Your task to perform on an android device: clear all cookies in the chrome app Image 0: 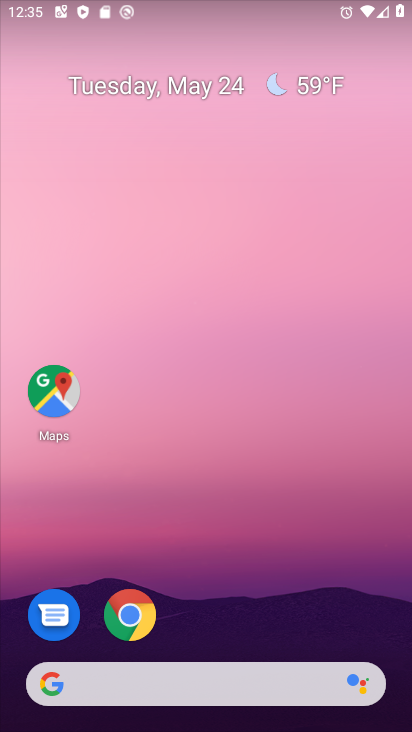
Step 0: drag from (260, 583) to (206, 15)
Your task to perform on an android device: clear all cookies in the chrome app Image 1: 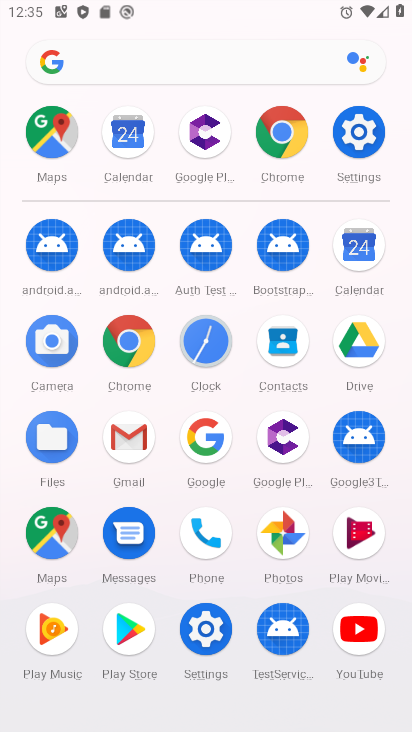
Step 1: click (127, 339)
Your task to perform on an android device: clear all cookies in the chrome app Image 2: 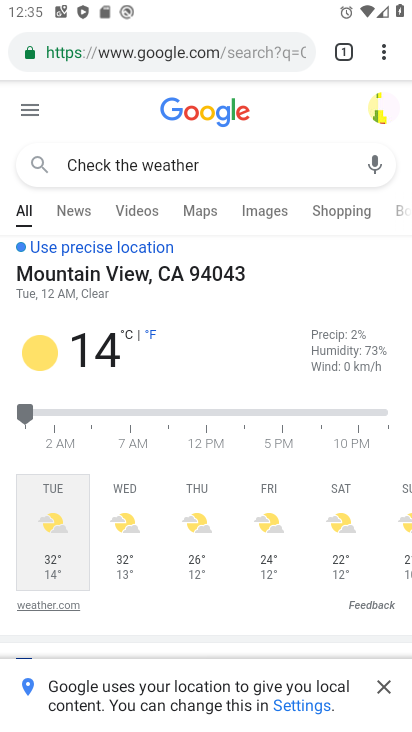
Step 2: drag from (383, 49) to (209, 579)
Your task to perform on an android device: clear all cookies in the chrome app Image 3: 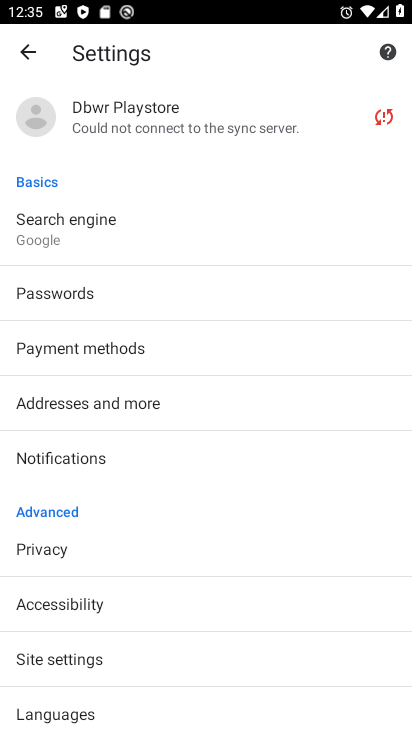
Step 3: drag from (192, 538) to (192, 182)
Your task to perform on an android device: clear all cookies in the chrome app Image 4: 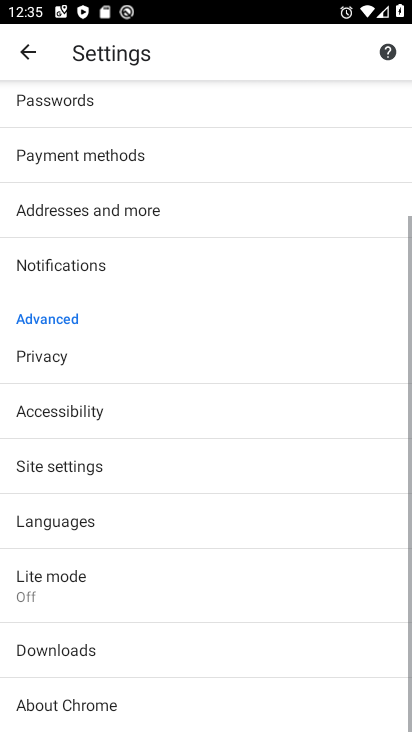
Step 4: drag from (199, 621) to (250, 204)
Your task to perform on an android device: clear all cookies in the chrome app Image 5: 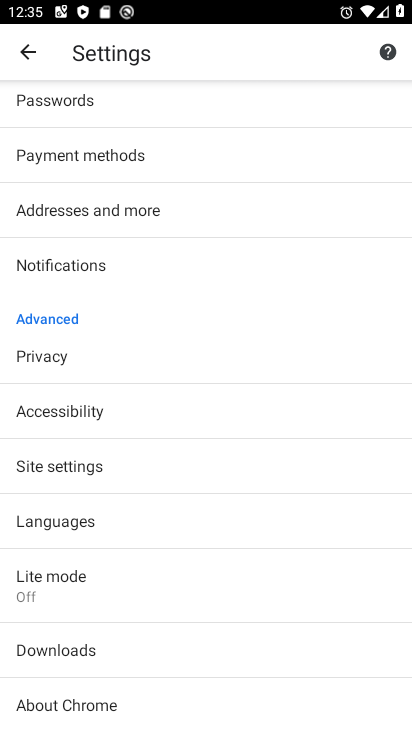
Step 5: click (89, 454)
Your task to perform on an android device: clear all cookies in the chrome app Image 6: 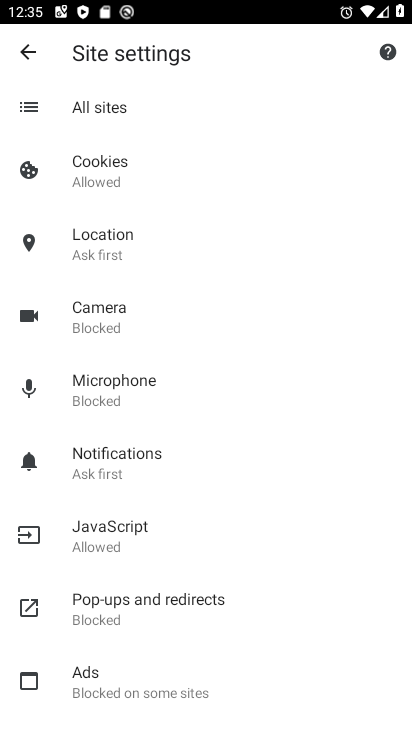
Step 6: click (139, 157)
Your task to perform on an android device: clear all cookies in the chrome app Image 7: 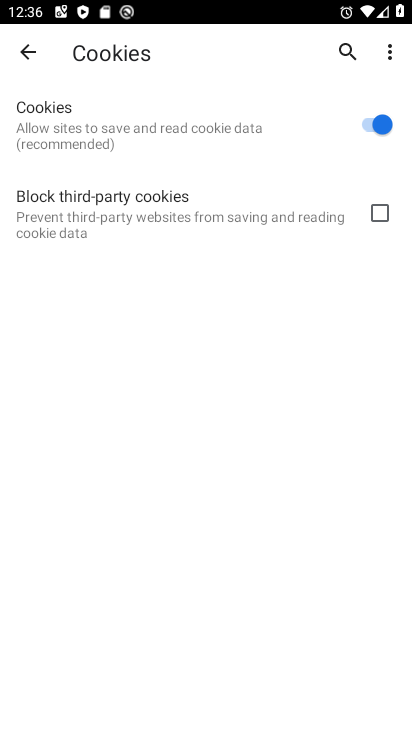
Step 7: task complete